Your task to perform on an android device: uninstall "Upside-Cash back on gas & food" Image 0: 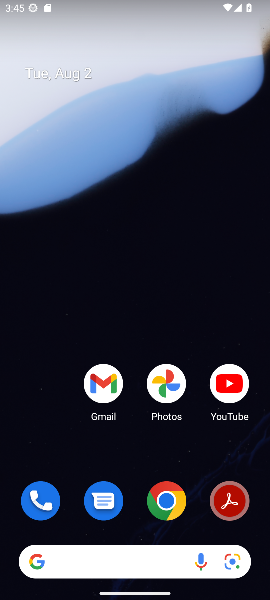
Step 0: drag from (206, 467) to (141, 116)
Your task to perform on an android device: uninstall "Upside-Cash back on gas & food" Image 1: 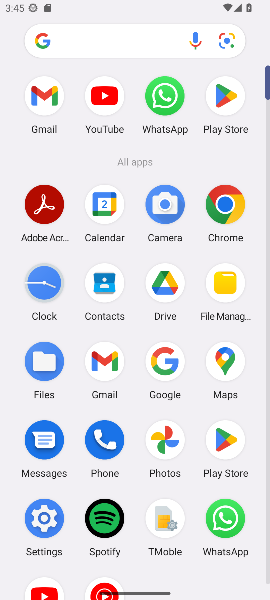
Step 1: click (225, 454)
Your task to perform on an android device: uninstall "Upside-Cash back on gas & food" Image 2: 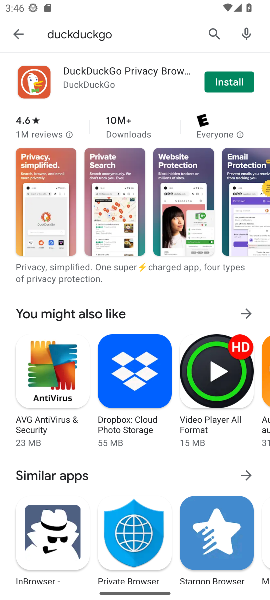
Step 2: click (214, 29)
Your task to perform on an android device: uninstall "Upside-Cash back on gas & food" Image 3: 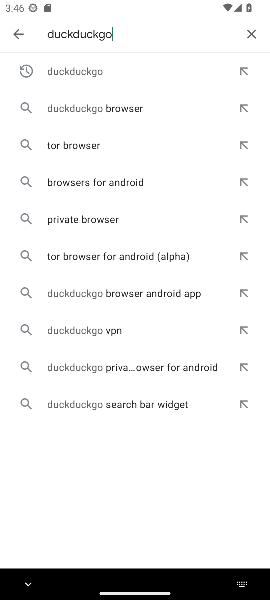
Step 3: click (249, 31)
Your task to perform on an android device: uninstall "Upside-Cash back on gas & food" Image 4: 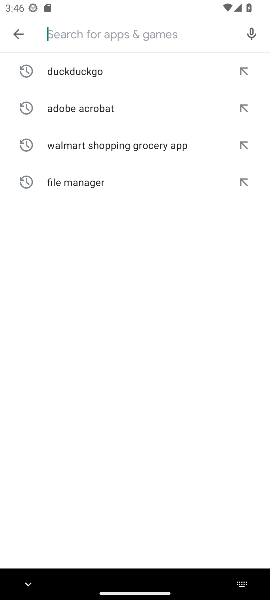
Step 4: click (249, 31)
Your task to perform on an android device: uninstall "Upside-Cash back on gas & food" Image 5: 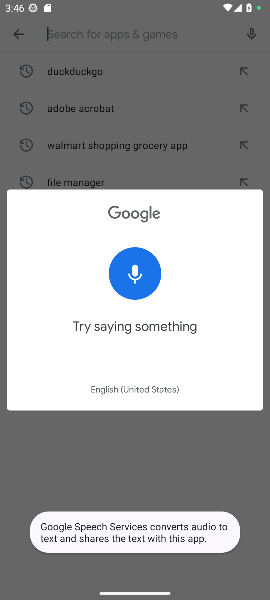
Step 5: click (182, 30)
Your task to perform on an android device: uninstall "Upside-Cash back on gas & food" Image 6: 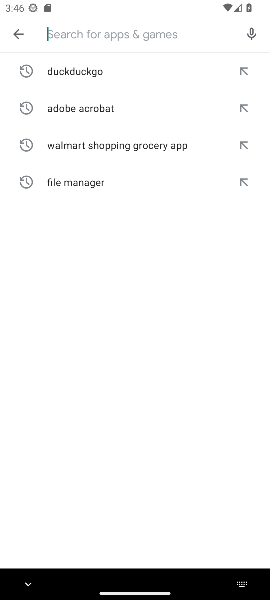
Step 6: type "upside - cash back"
Your task to perform on an android device: uninstall "Upside-Cash back on gas & food" Image 7: 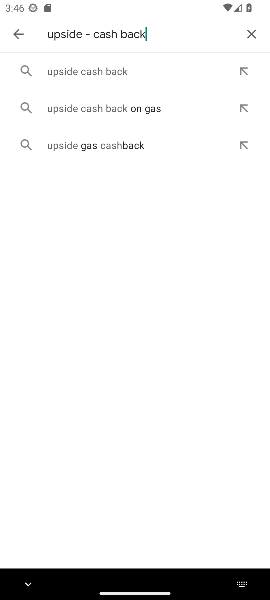
Step 7: click (89, 73)
Your task to perform on an android device: uninstall "Upside-Cash back on gas & food" Image 8: 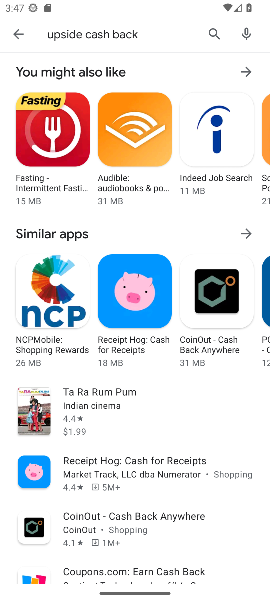
Step 8: task complete